Your task to perform on an android device: change the clock display to digital Image 0: 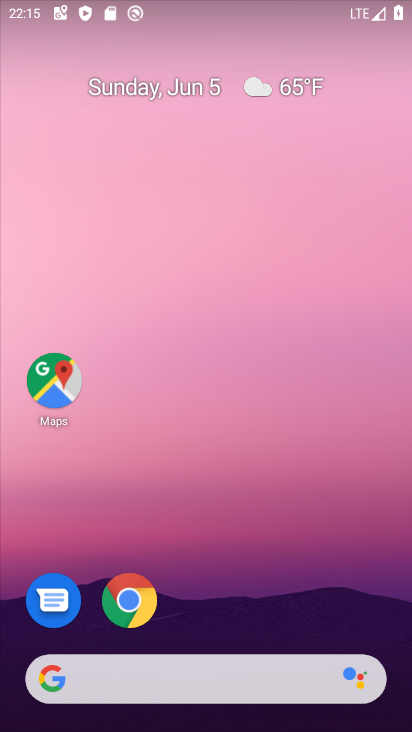
Step 0: drag from (274, 525) to (193, 13)
Your task to perform on an android device: change the clock display to digital Image 1: 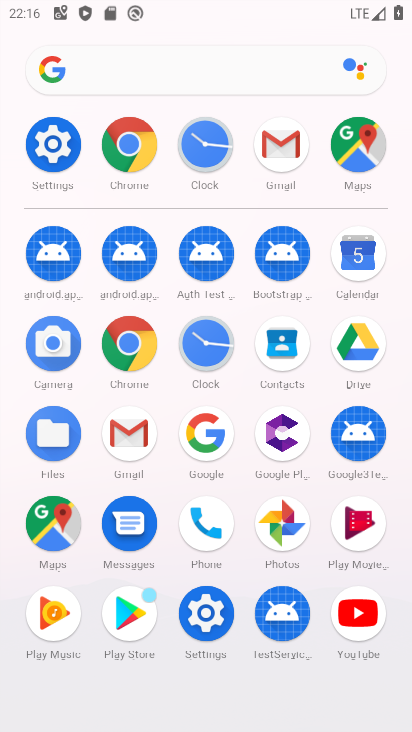
Step 1: click (197, 138)
Your task to perform on an android device: change the clock display to digital Image 2: 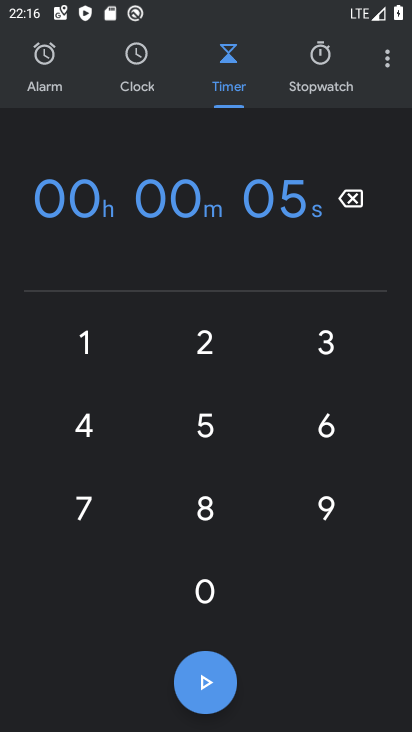
Step 2: click (392, 63)
Your task to perform on an android device: change the clock display to digital Image 3: 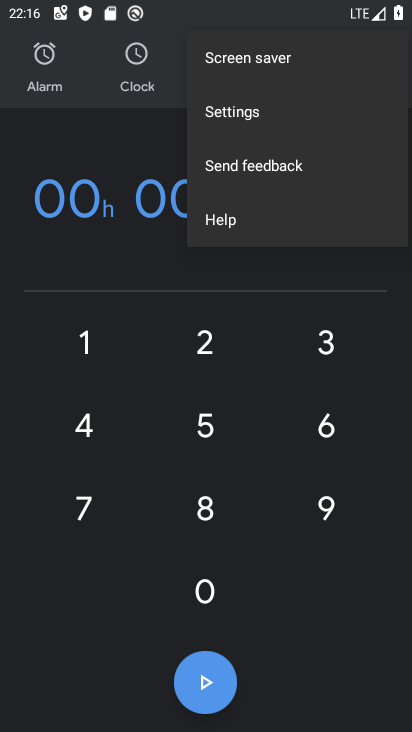
Step 3: click (246, 112)
Your task to perform on an android device: change the clock display to digital Image 4: 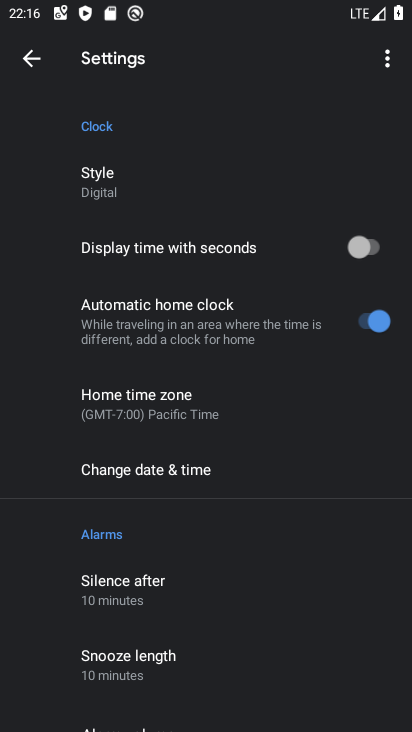
Step 4: task complete